Your task to perform on an android device: Open Google Maps Image 0: 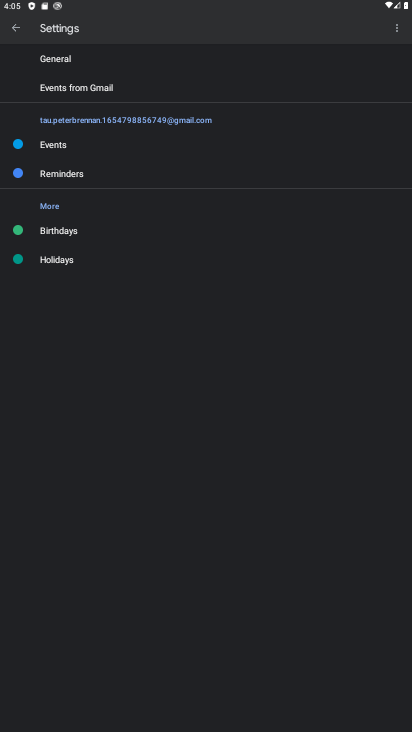
Step 0: press home button
Your task to perform on an android device: Open Google Maps Image 1: 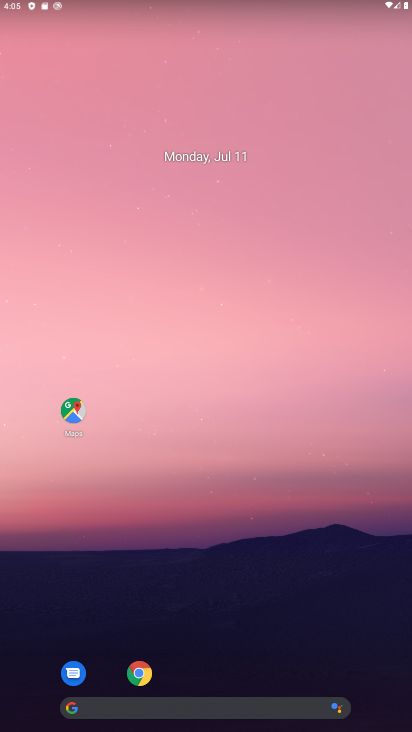
Step 1: click (72, 412)
Your task to perform on an android device: Open Google Maps Image 2: 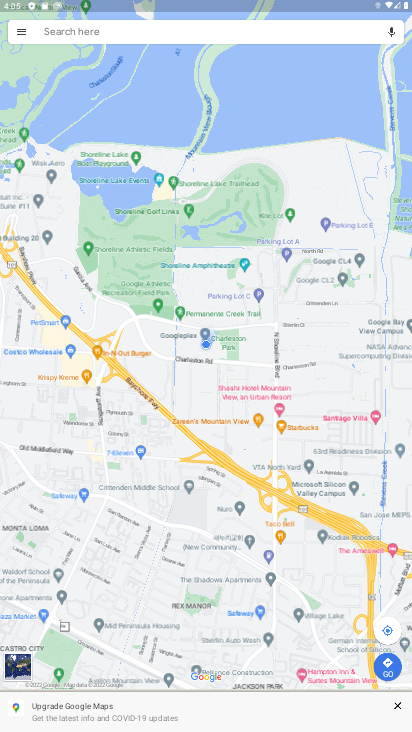
Step 2: task complete